Your task to perform on an android device: set the timer Image 0: 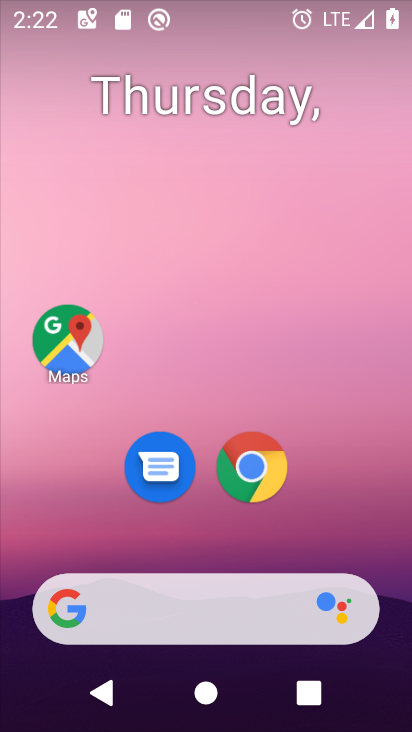
Step 0: drag from (203, 565) to (125, 16)
Your task to perform on an android device: set the timer Image 1: 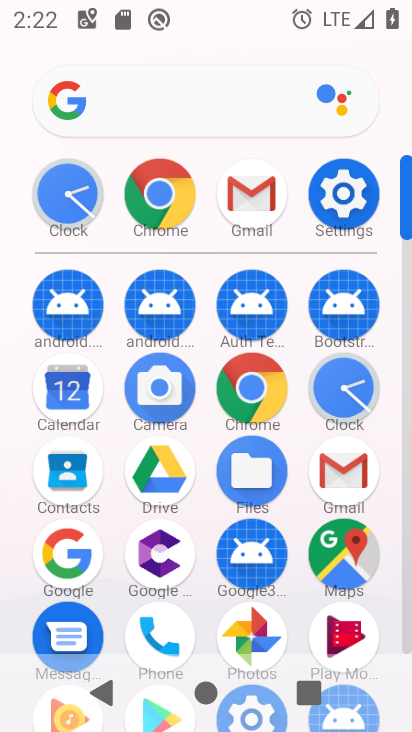
Step 1: click (326, 396)
Your task to perform on an android device: set the timer Image 2: 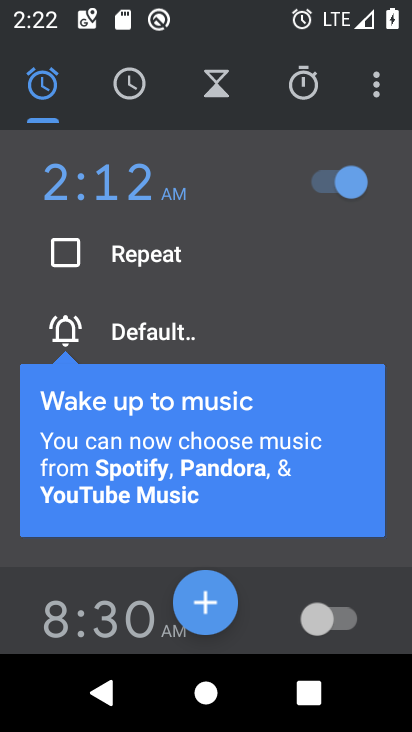
Step 2: click (141, 95)
Your task to perform on an android device: set the timer Image 3: 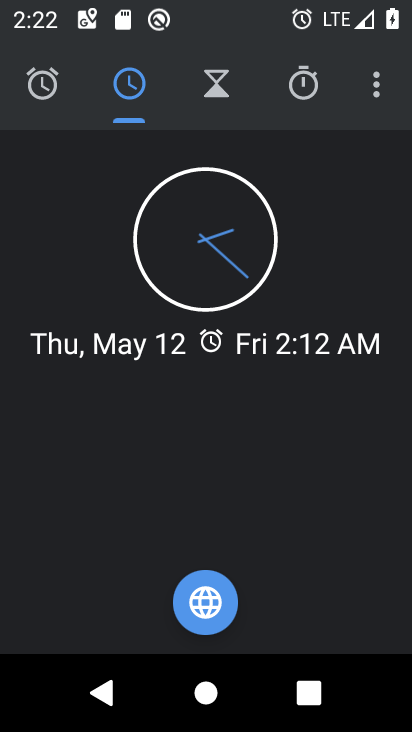
Step 3: click (225, 96)
Your task to perform on an android device: set the timer Image 4: 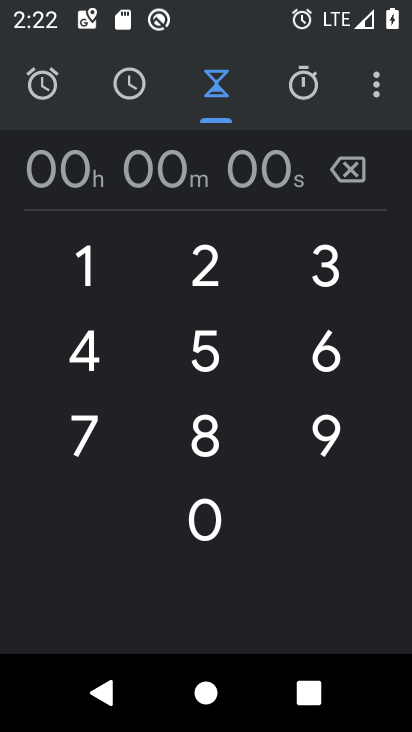
Step 4: click (281, 90)
Your task to perform on an android device: set the timer Image 5: 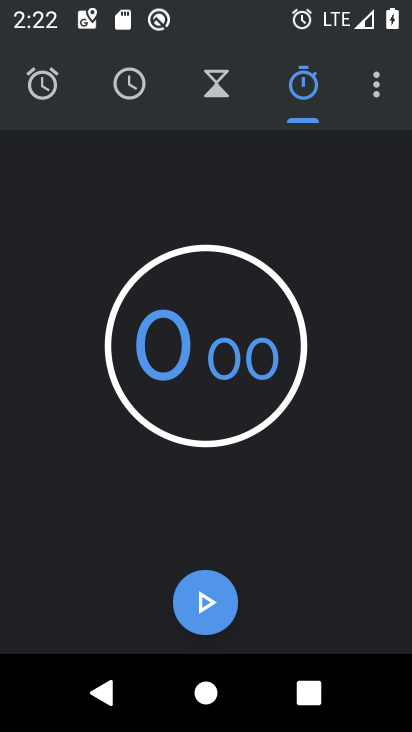
Step 5: click (201, 99)
Your task to perform on an android device: set the timer Image 6: 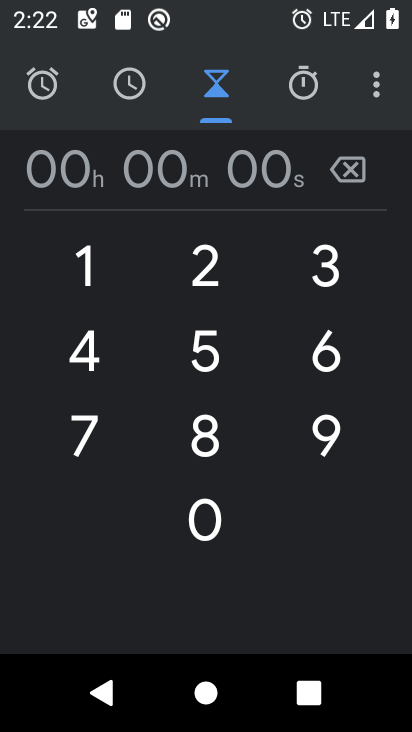
Step 6: click (216, 255)
Your task to perform on an android device: set the timer Image 7: 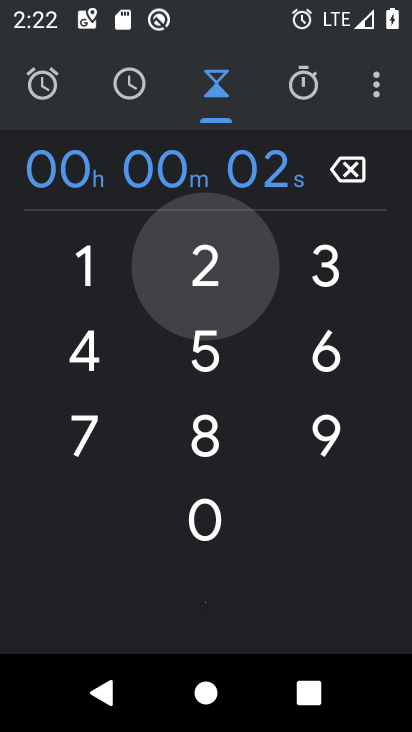
Step 7: click (195, 339)
Your task to perform on an android device: set the timer Image 8: 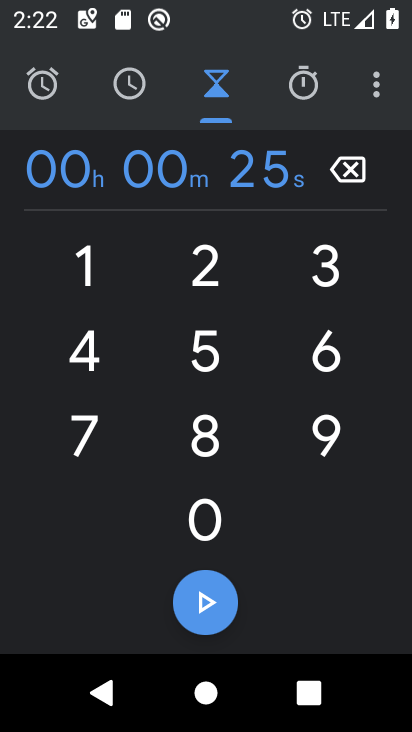
Step 8: click (218, 595)
Your task to perform on an android device: set the timer Image 9: 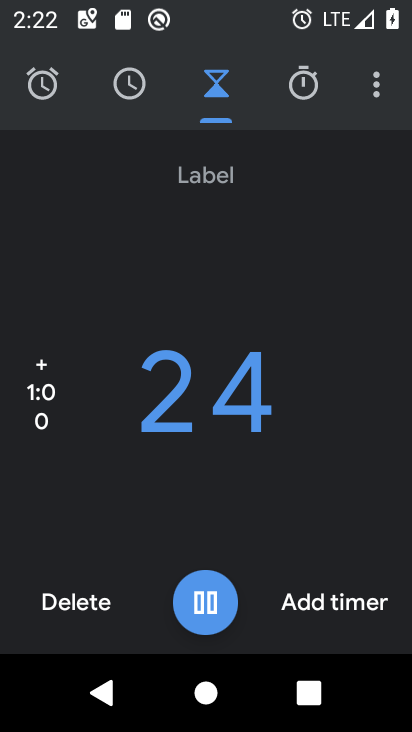
Step 9: task complete